Your task to perform on an android device: set the stopwatch Image 0: 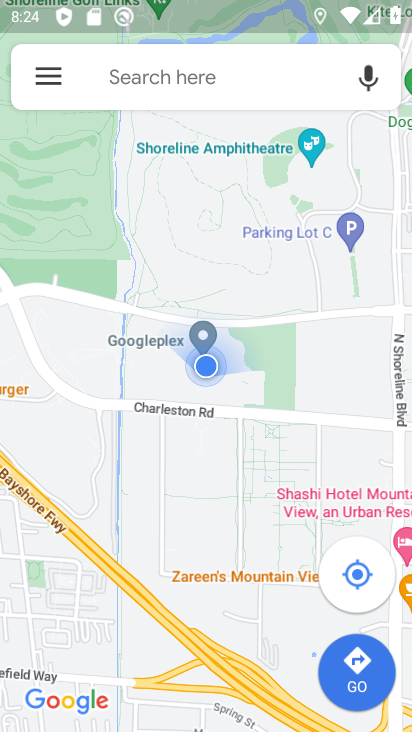
Step 0: press home button
Your task to perform on an android device: set the stopwatch Image 1: 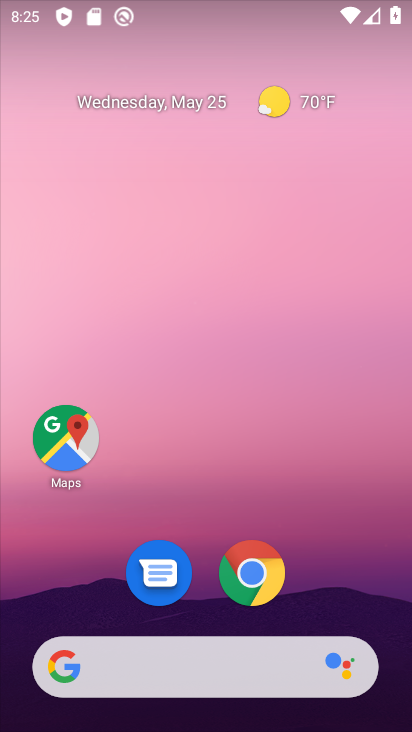
Step 1: drag from (325, 589) to (277, 209)
Your task to perform on an android device: set the stopwatch Image 2: 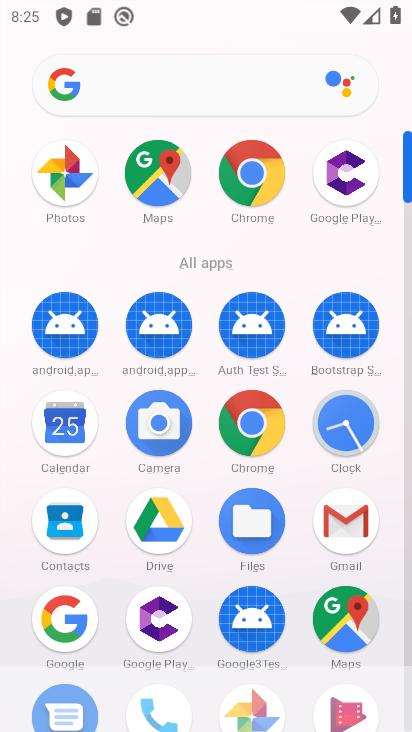
Step 2: click (355, 439)
Your task to perform on an android device: set the stopwatch Image 3: 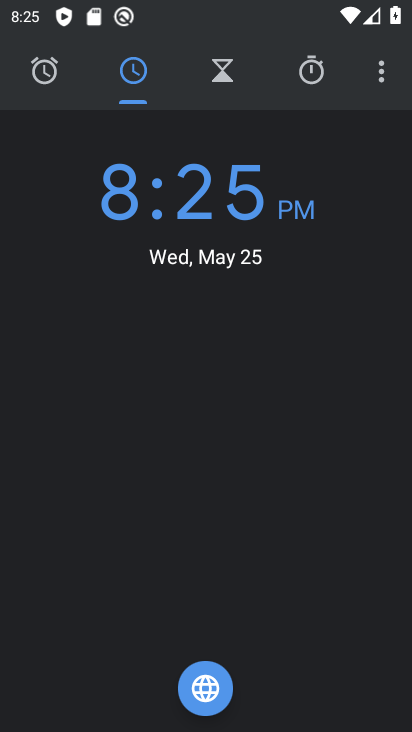
Step 3: click (322, 95)
Your task to perform on an android device: set the stopwatch Image 4: 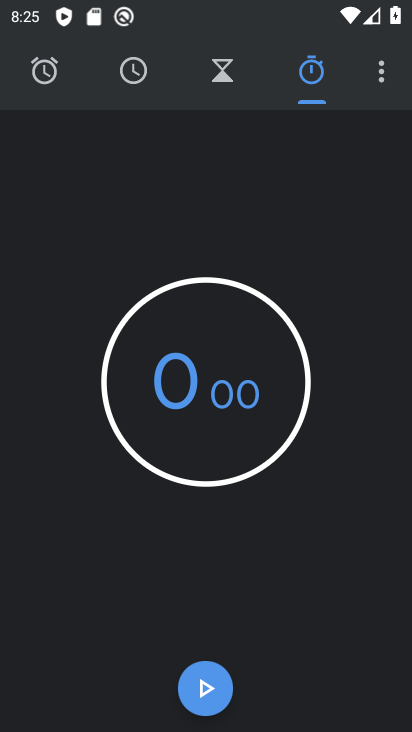
Step 4: click (213, 698)
Your task to perform on an android device: set the stopwatch Image 5: 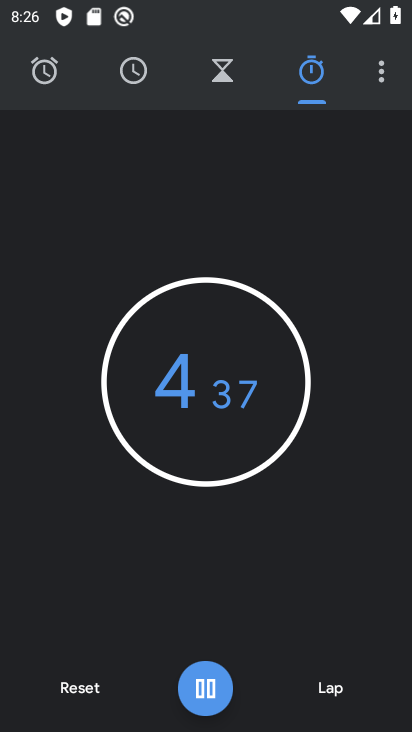
Step 5: task complete